Your task to perform on an android device: change alarm snooze length Image 0: 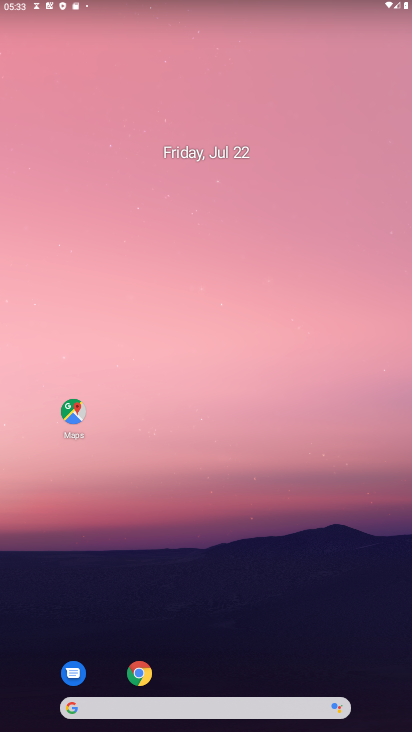
Step 0: press home button
Your task to perform on an android device: change alarm snooze length Image 1: 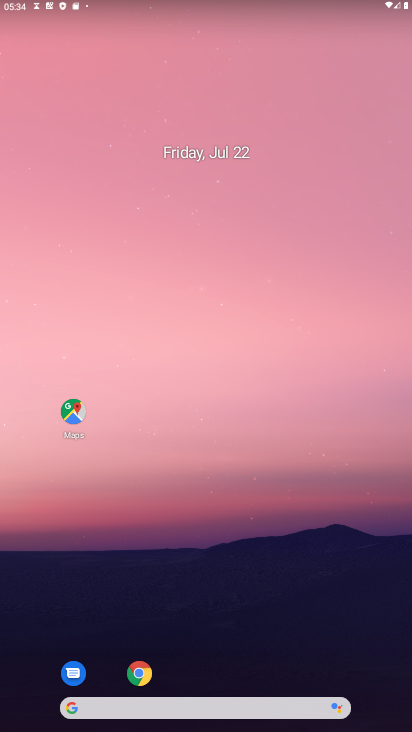
Step 1: drag from (259, 653) to (287, 124)
Your task to perform on an android device: change alarm snooze length Image 2: 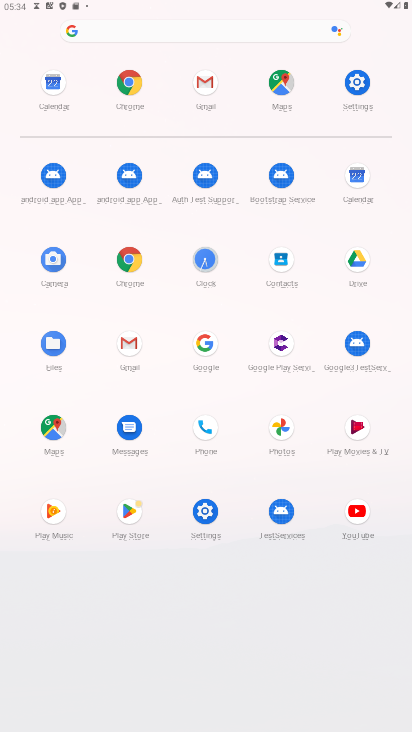
Step 2: click (196, 252)
Your task to perform on an android device: change alarm snooze length Image 3: 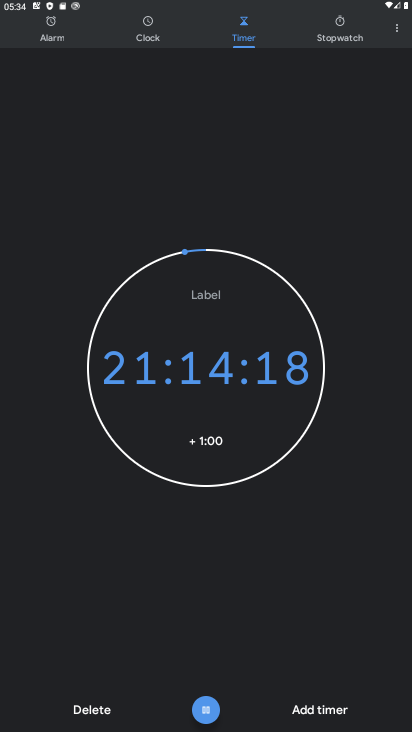
Step 3: click (399, 24)
Your task to perform on an android device: change alarm snooze length Image 4: 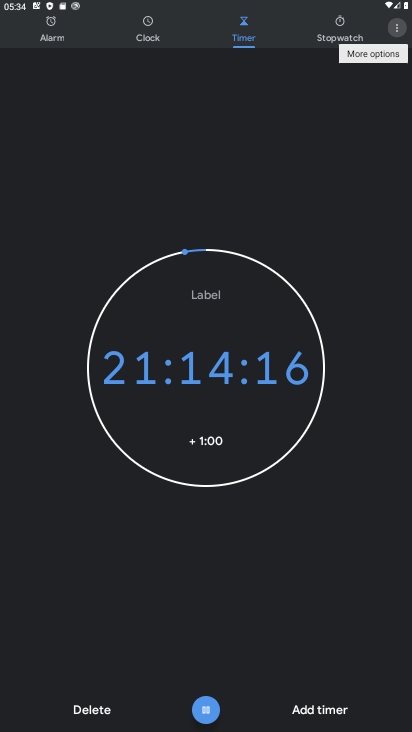
Step 4: click (399, 24)
Your task to perform on an android device: change alarm snooze length Image 5: 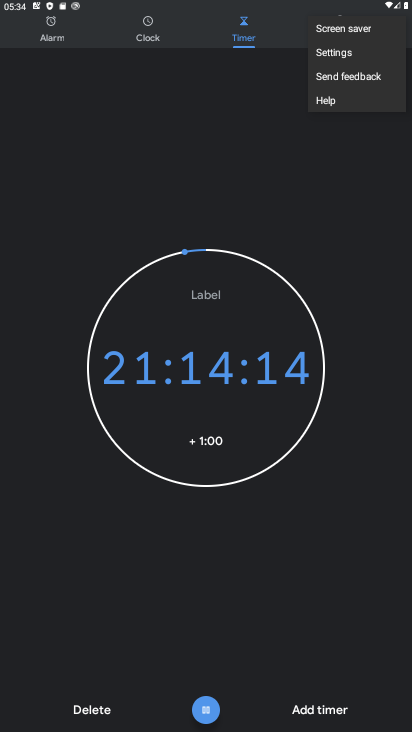
Step 5: click (346, 51)
Your task to perform on an android device: change alarm snooze length Image 6: 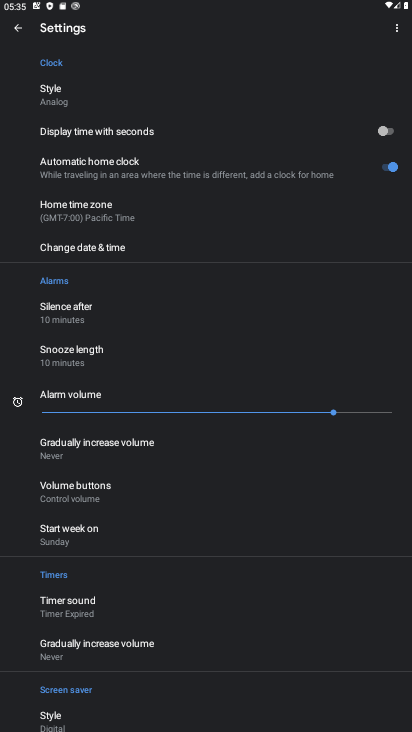
Step 6: click (93, 353)
Your task to perform on an android device: change alarm snooze length Image 7: 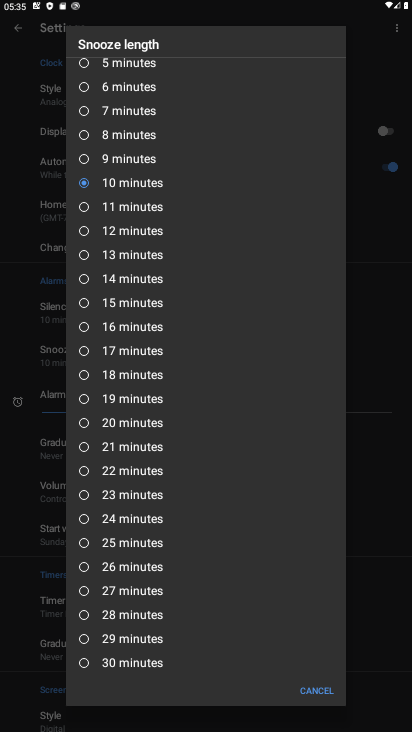
Step 7: click (82, 298)
Your task to perform on an android device: change alarm snooze length Image 8: 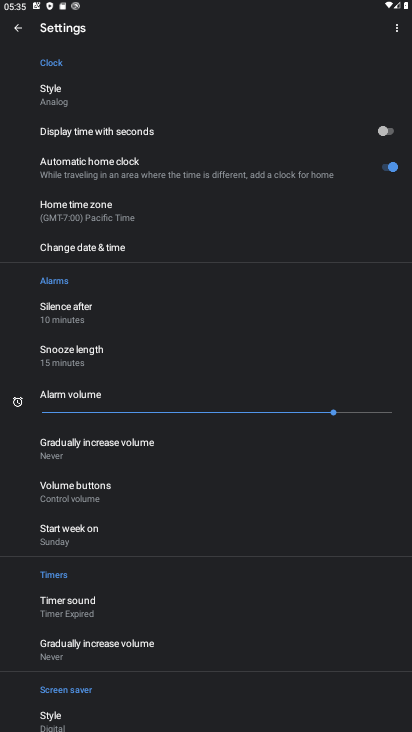
Step 8: task complete